Your task to perform on an android device: Open Amazon Image 0: 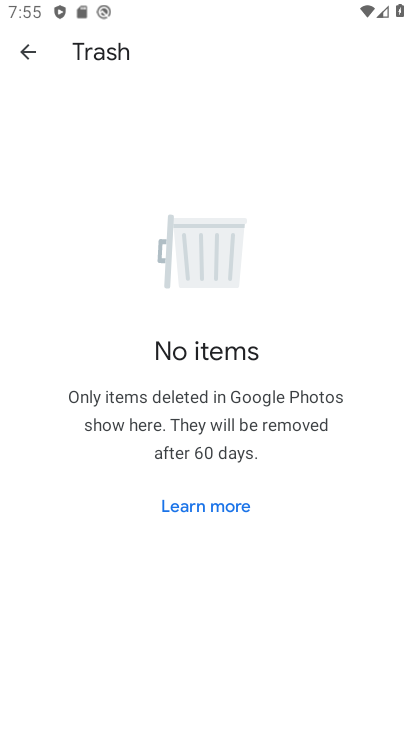
Step 0: press home button
Your task to perform on an android device: Open Amazon Image 1: 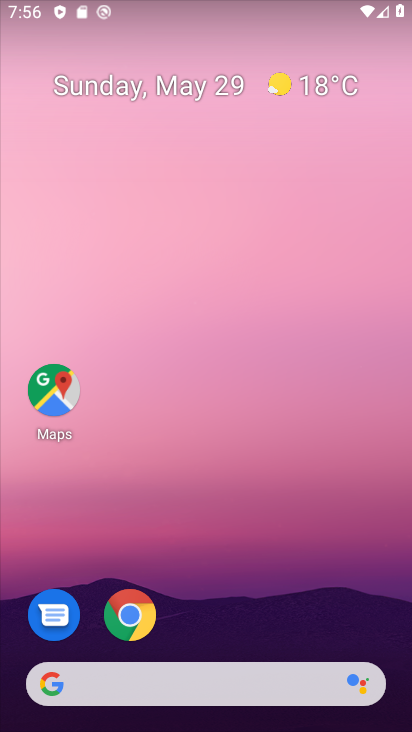
Step 1: click (143, 626)
Your task to perform on an android device: Open Amazon Image 2: 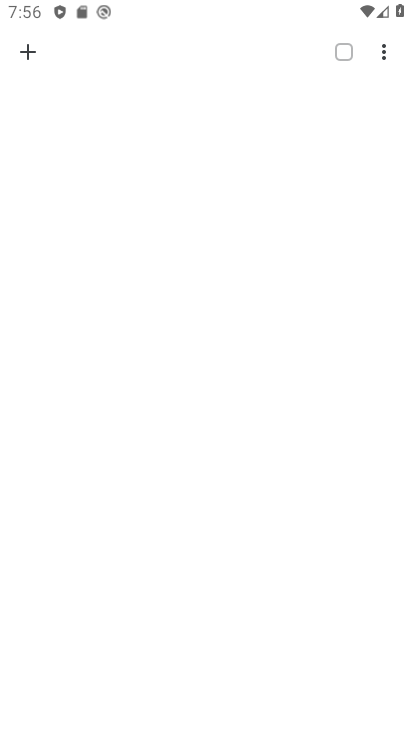
Step 2: click (29, 57)
Your task to perform on an android device: Open Amazon Image 3: 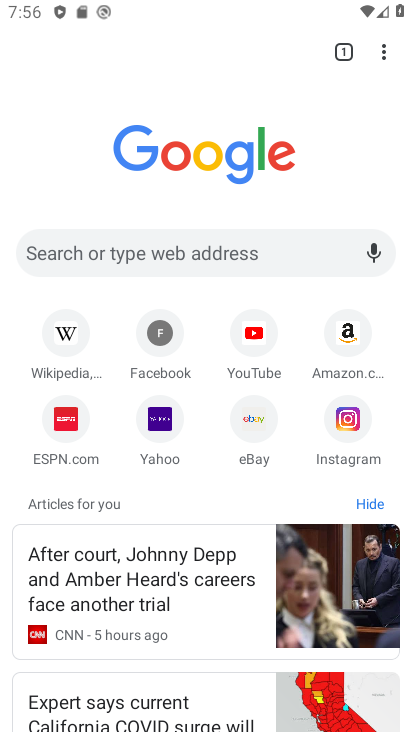
Step 3: click (353, 323)
Your task to perform on an android device: Open Amazon Image 4: 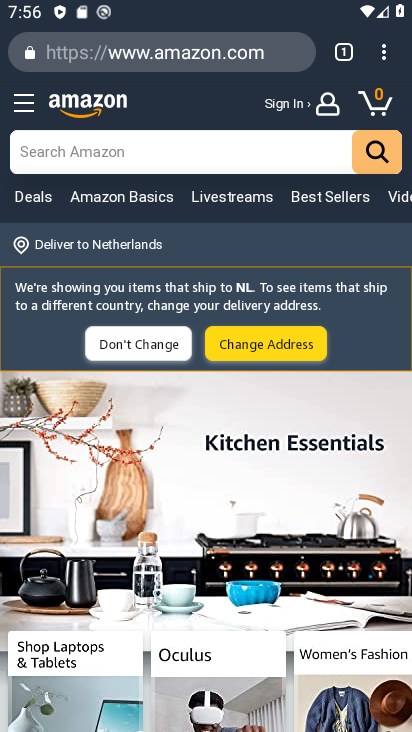
Step 4: task complete